Your task to perform on an android device: turn on priority inbox in the gmail app Image 0: 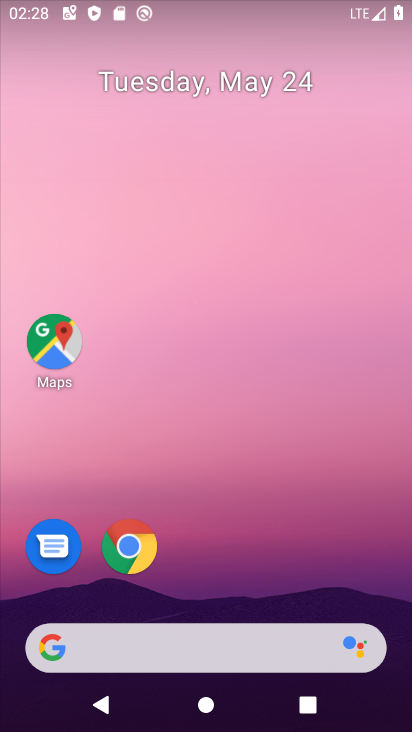
Step 0: drag from (198, 583) to (293, 144)
Your task to perform on an android device: turn on priority inbox in the gmail app Image 1: 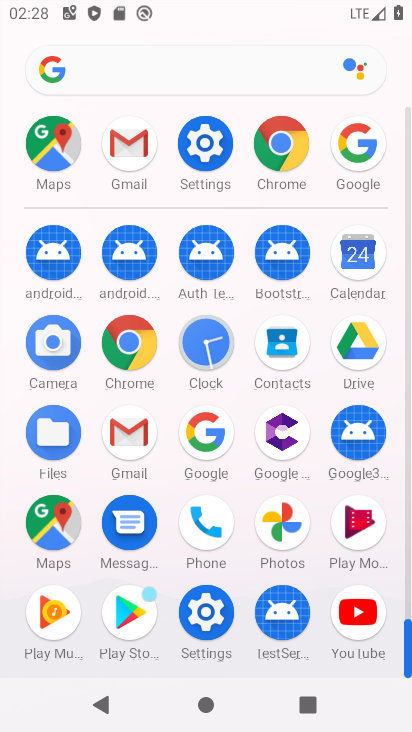
Step 1: click (134, 422)
Your task to perform on an android device: turn on priority inbox in the gmail app Image 2: 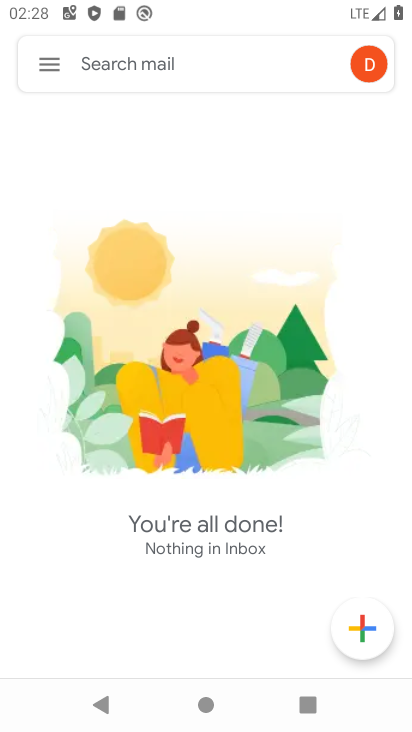
Step 2: click (58, 67)
Your task to perform on an android device: turn on priority inbox in the gmail app Image 3: 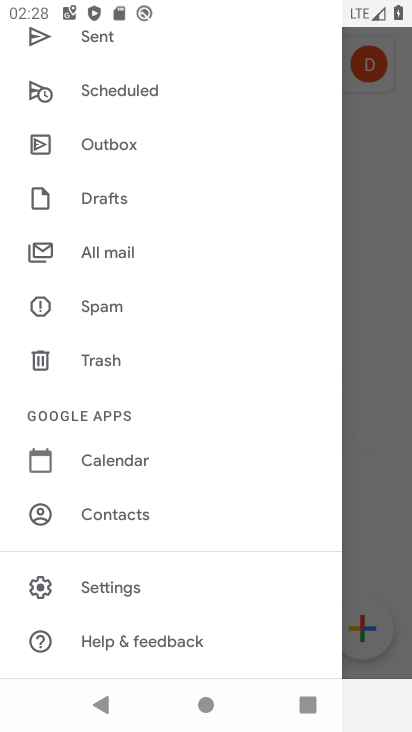
Step 3: click (126, 588)
Your task to perform on an android device: turn on priority inbox in the gmail app Image 4: 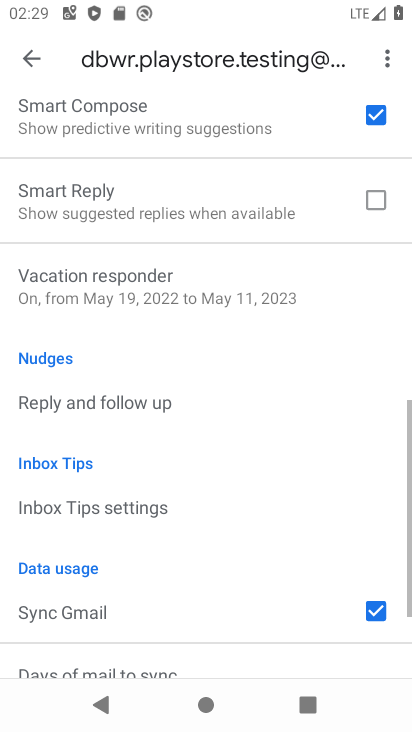
Step 4: drag from (133, 151) to (293, 730)
Your task to perform on an android device: turn on priority inbox in the gmail app Image 5: 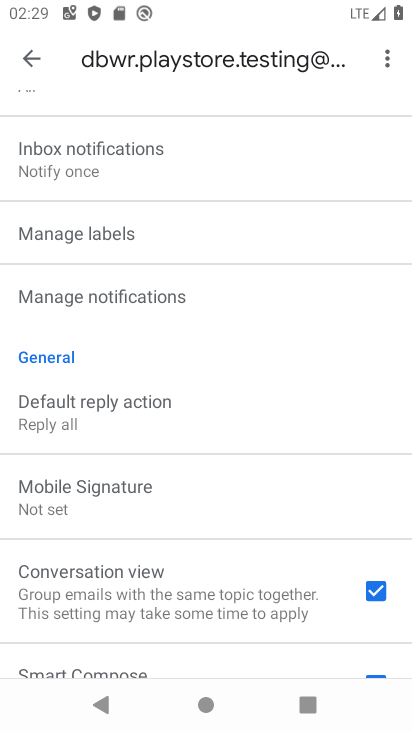
Step 5: drag from (116, 248) to (319, 730)
Your task to perform on an android device: turn on priority inbox in the gmail app Image 6: 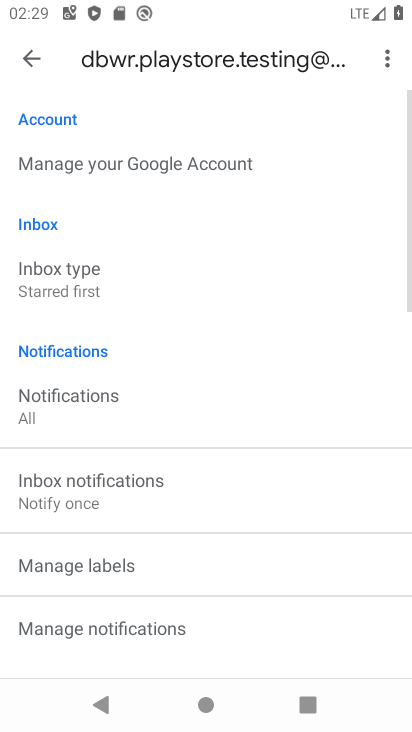
Step 6: drag from (110, 273) to (307, 590)
Your task to perform on an android device: turn on priority inbox in the gmail app Image 7: 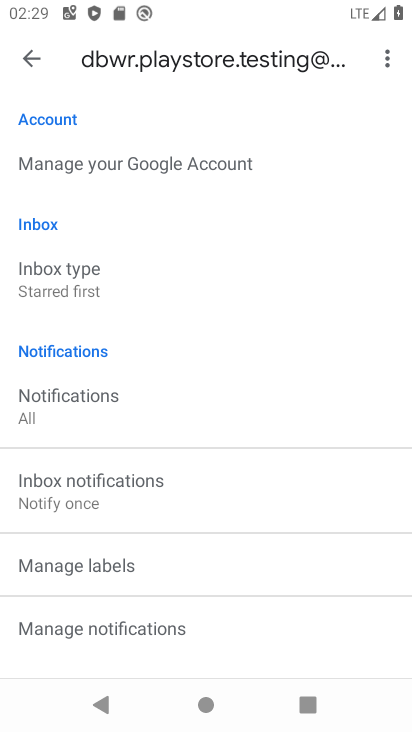
Step 7: click (109, 283)
Your task to perform on an android device: turn on priority inbox in the gmail app Image 8: 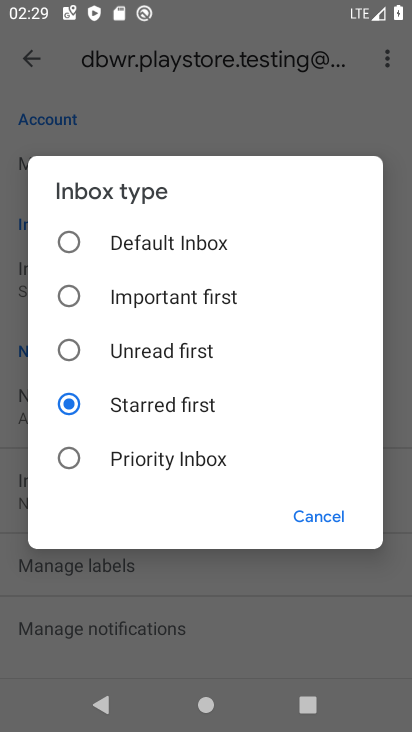
Step 8: click (94, 466)
Your task to perform on an android device: turn on priority inbox in the gmail app Image 9: 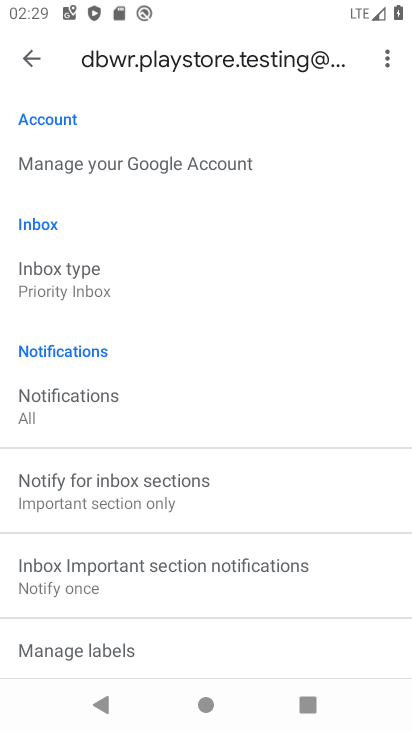
Step 9: task complete